Your task to perform on an android device: all mails in gmail Image 0: 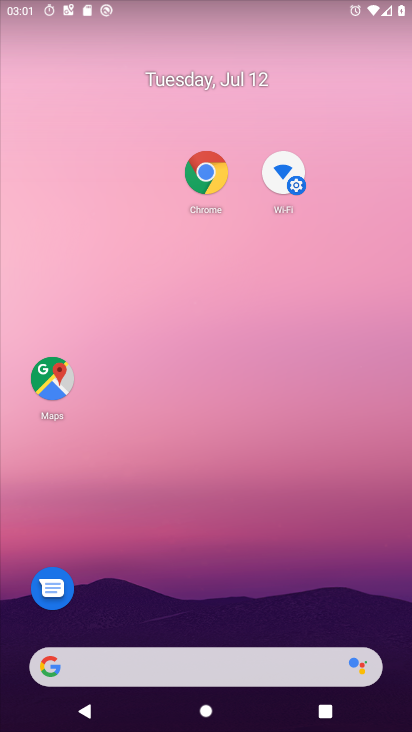
Step 0: drag from (259, 263) to (330, 3)
Your task to perform on an android device: all mails in gmail Image 1: 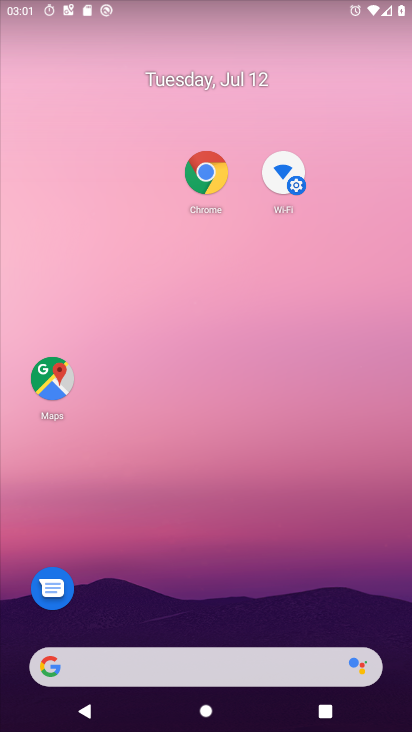
Step 1: drag from (240, 497) to (249, 182)
Your task to perform on an android device: all mails in gmail Image 2: 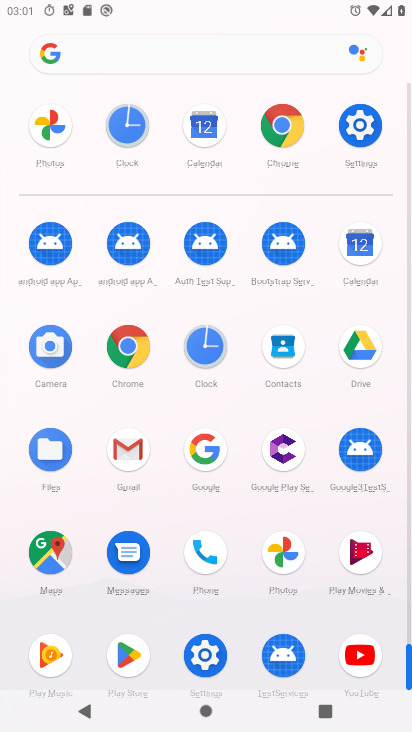
Step 2: click (129, 456)
Your task to perform on an android device: all mails in gmail Image 3: 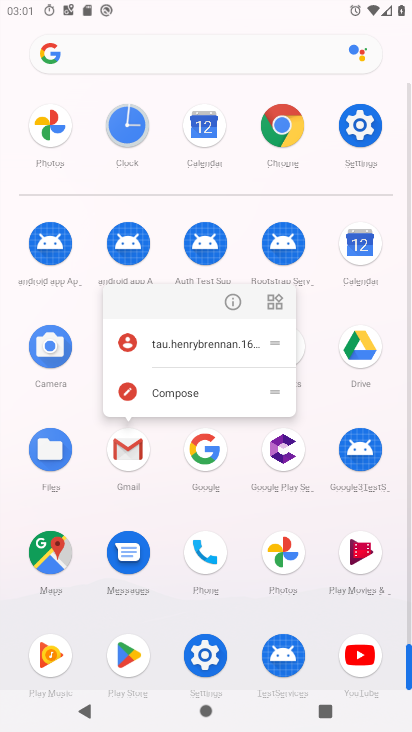
Step 3: click (228, 297)
Your task to perform on an android device: all mails in gmail Image 4: 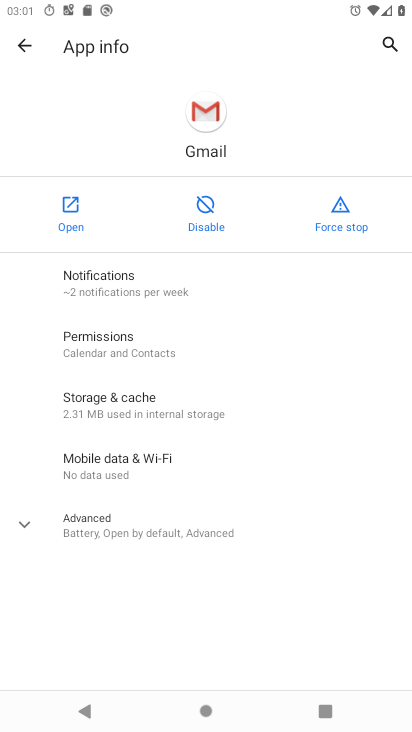
Step 4: drag from (157, 525) to (257, 88)
Your task to perform on an android device: all mails in gmail Image 5: 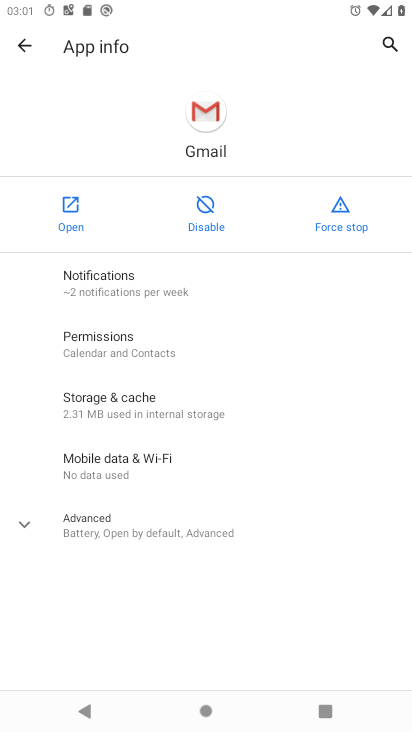
Step 5: click (72, 210)
Your task to perform on an android device: all mails in gmail Image 6: 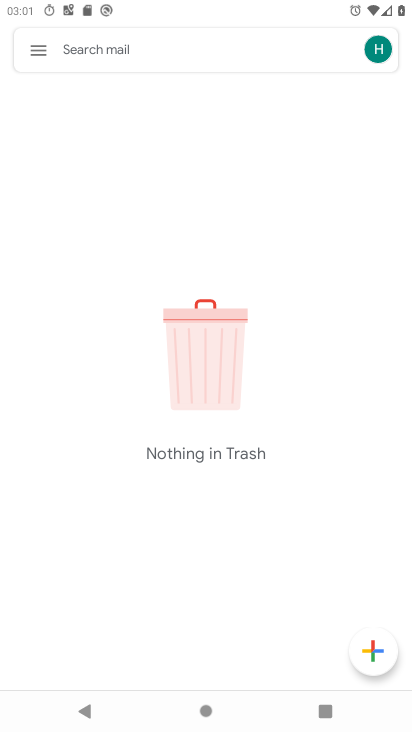
Step 6: drag from (157, 604) to (234, 303)
Your task to perform on an android device: all mails in gmail Image 7: 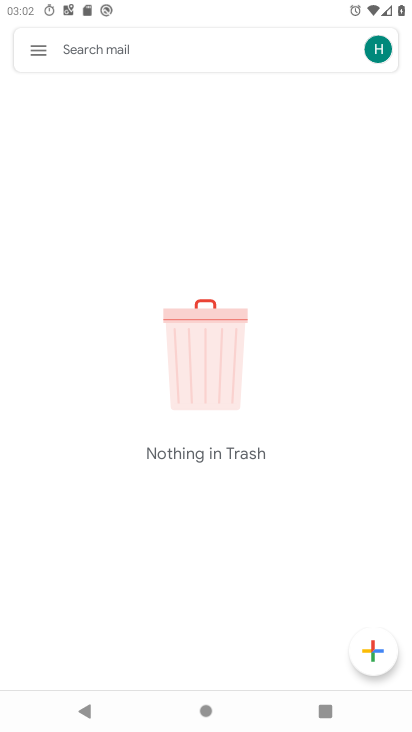
Step 7: click (26, 50)
Your task to perform on an android device: all mails in gmail Image 8: 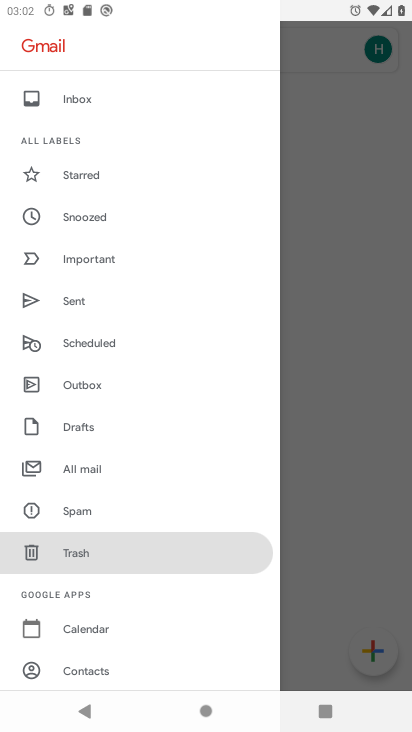
Step 8: click (85, 466)
Your task to perform on an android device: all mails in gmail Image 9: 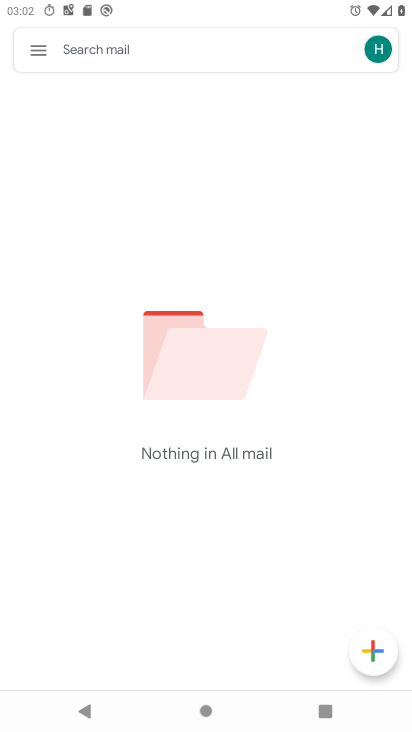
Step 9: drag from (231, 580) to (294, 315)
Your task to perform on an android device: all mails in gmail Image 10: 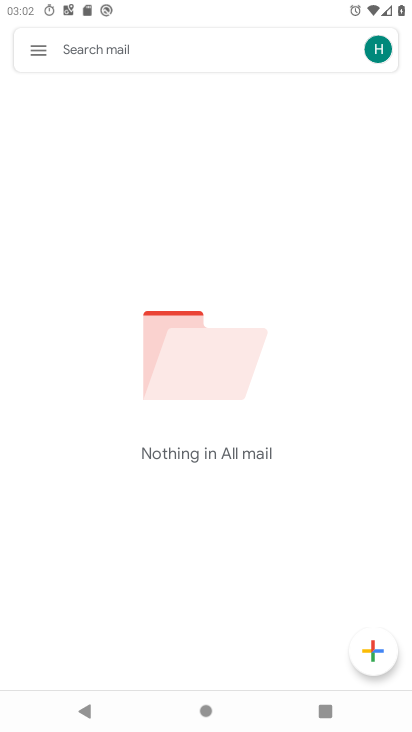
Step 10: drag from (174, 445) to (178, 165)
Your task to perform on an android device: all mails in gmail Image 11: 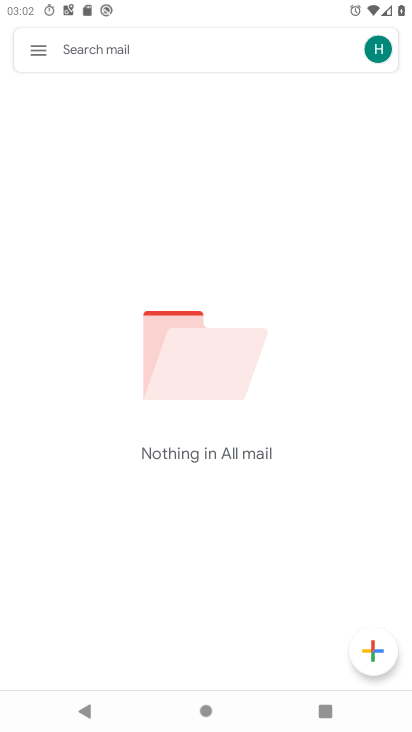
Step 11: click (37, 51)
Your task to perform on an android device: all mails in gmail Image 12: 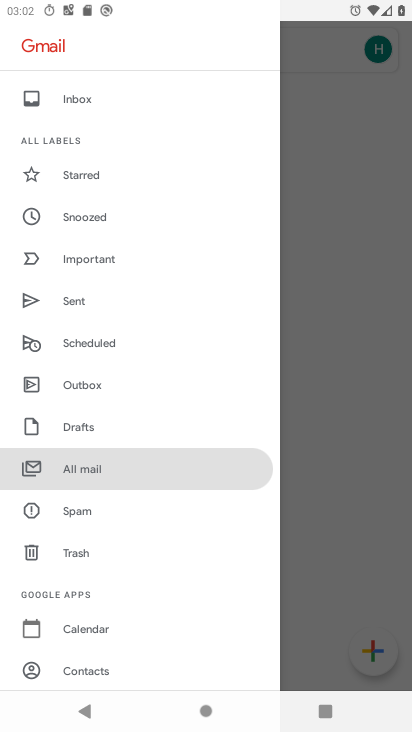
Step 12: click (81, 471)
Your task to perform on an android device: all mails in gmail Image 13: 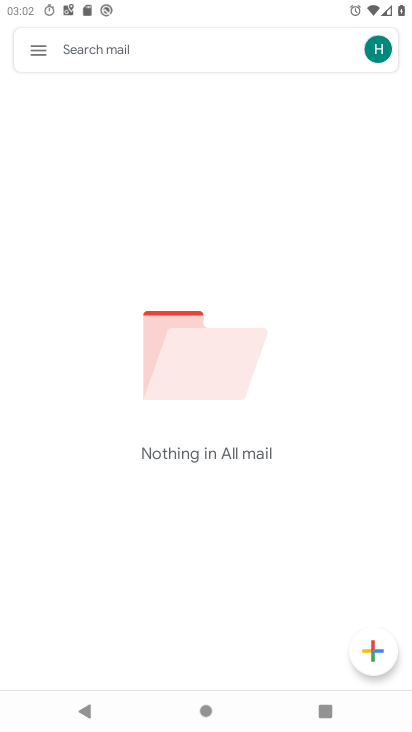
Step 13: click (316, 455)
Your task to perform on an android device: all mails in gmail Image 14: 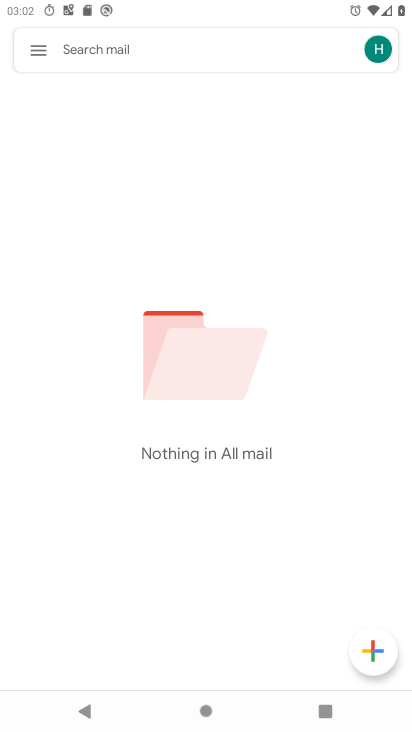
Step 14: task complete